Your task to perform on an android device: toggle show notifications on the lock screen Image 0: 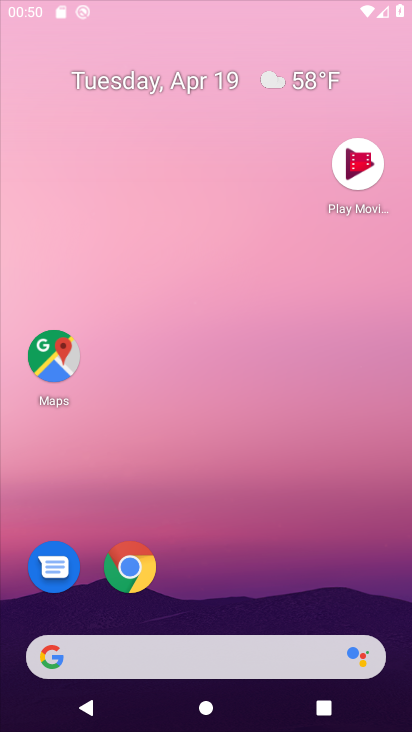
Step 0: click (358, 176)
Your task to perform on an android device: toggle show notifications on the lock screen Image 1: 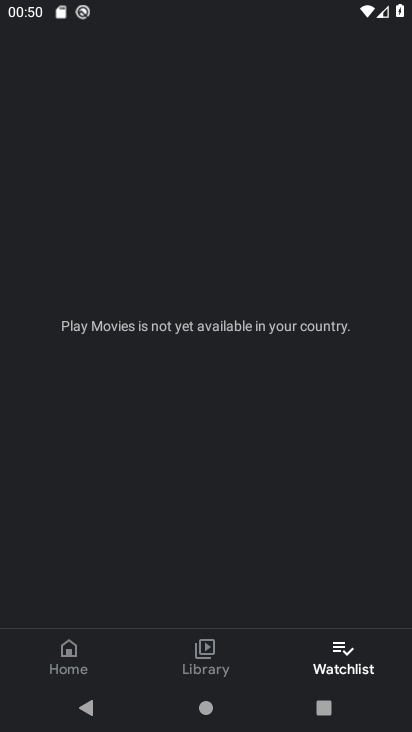
Step 1: drag from (272, 453) to (319, 240)
Your task to perform on an android device: toggle show notifications on the lock screen Image 2: 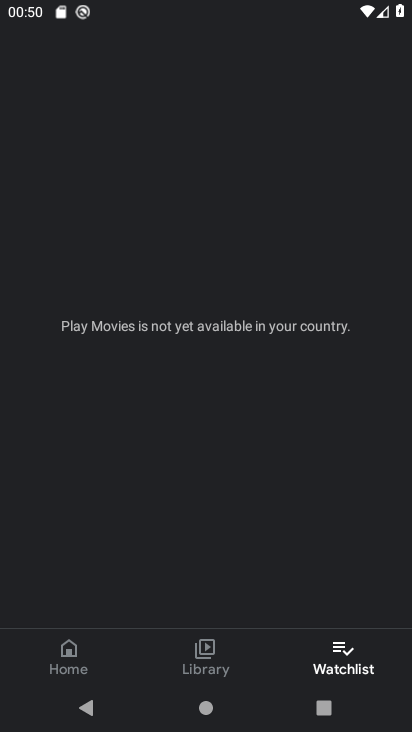
Step 2: press home button
Your task to perform on an android device: toggle show notifications on the lock screen Image 3: 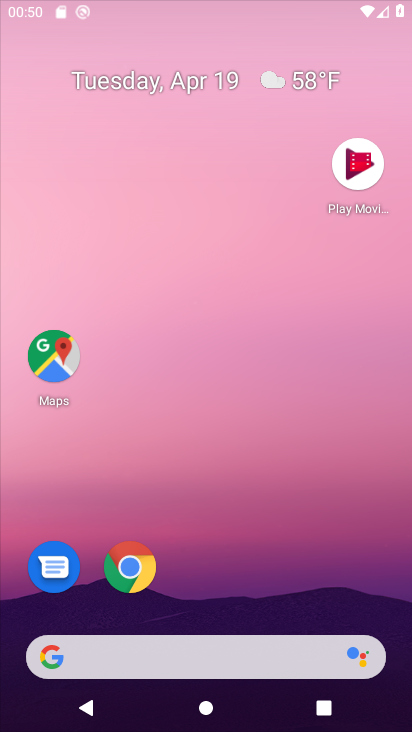
Step 3: drag from (188, 585) to (271, 23)
Your task to perform on an android device: toggle show notifications on the lock screen Image 4: 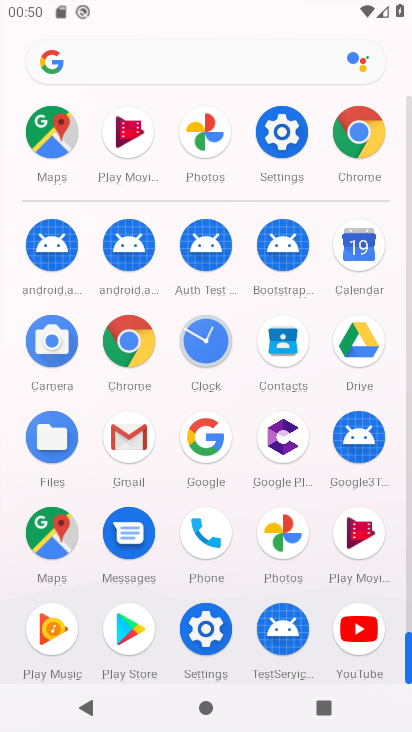
Step 4: click (223, 618)
Your task to perform on an android device: toggle show notifications on the lock screen Image 5: 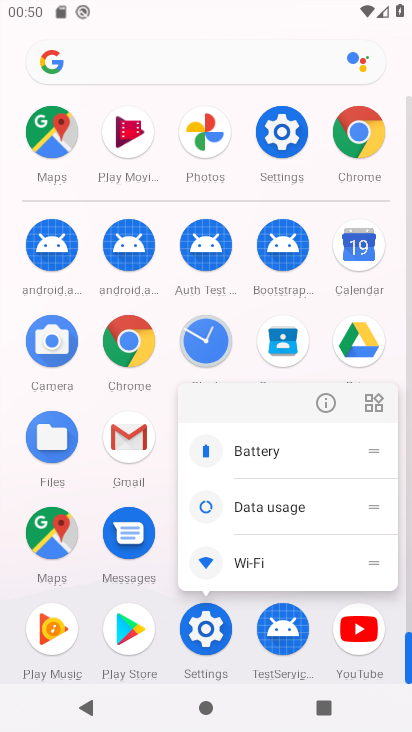
Step 5: click (311, 398)
Your task to perform on an android device: toggle show notifications on the lock screen Image 6: 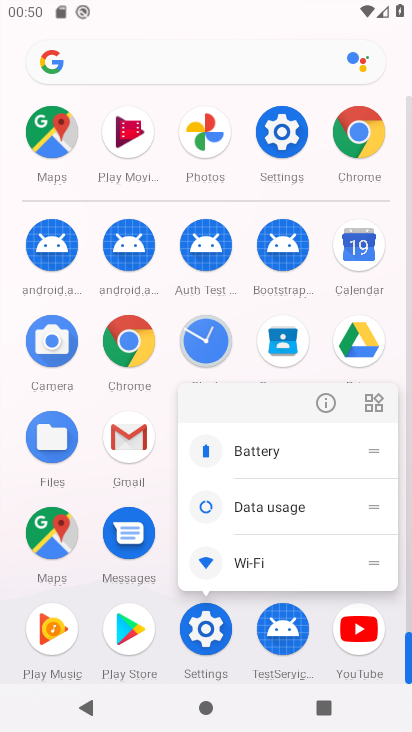
Step 6: click (323, 401)
Your task to perform on an android device: toggle show notifications on the lock screen Image 7: 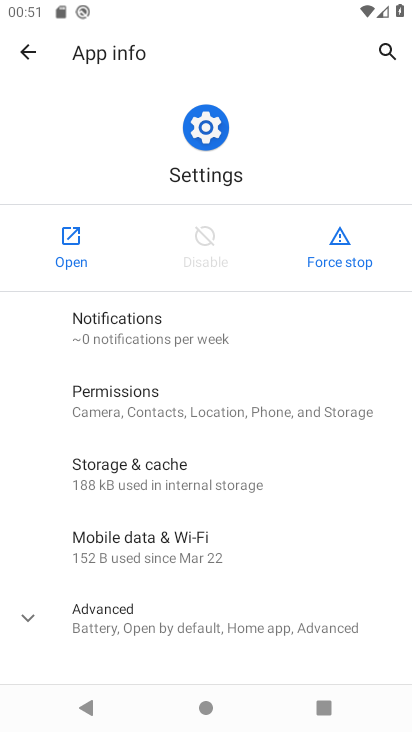
Step 7: click (60, 238)
Your task to perform on an android device: toggle show notifications on the lock screen Image 8: 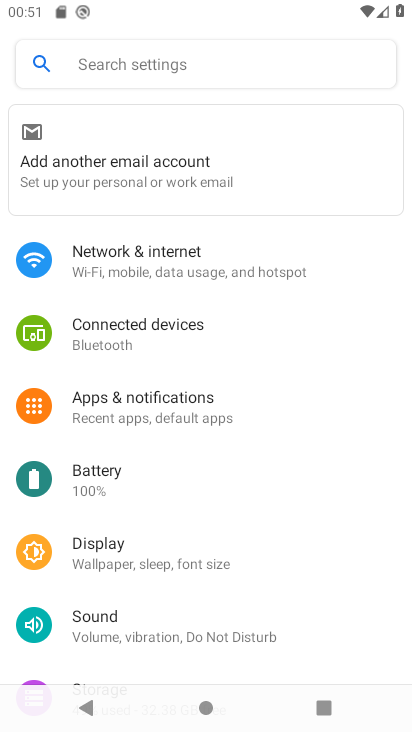
Step 8: click (157, 406)
Your task to perform on an android device: toggle show notifications on the lock screen Image 9: 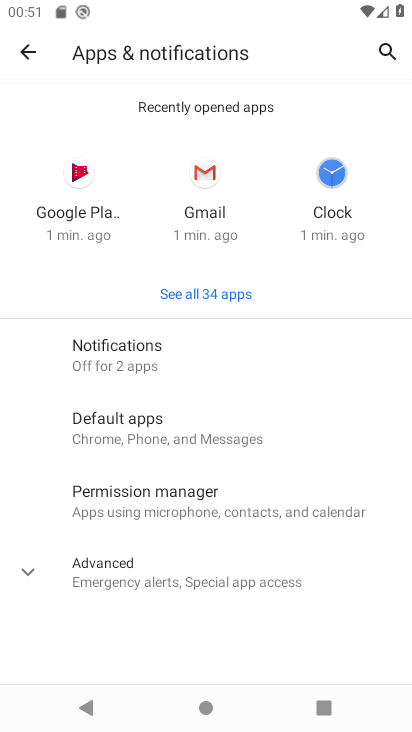
Step 9: click (145, 356)
Your task to perform on an android device: toggle show notifications on the lock screen Image 10: 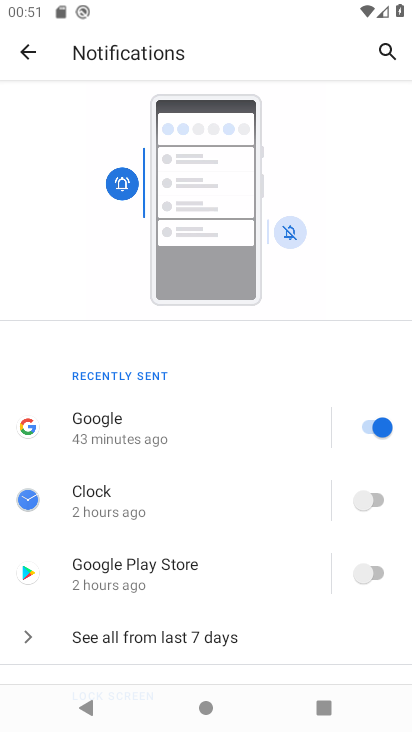
Step 10: drag from (301, 525) to (333, 217)
Your task to perform on an android device: toggle show notifications on the lock screen Image 11: 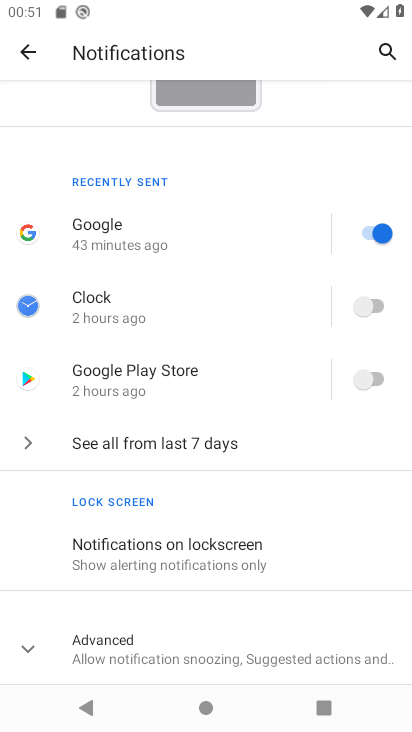
Step 11: click (171, 553)
Your task to perform on an android device: toggle show notifications on the lock screen Image 12: 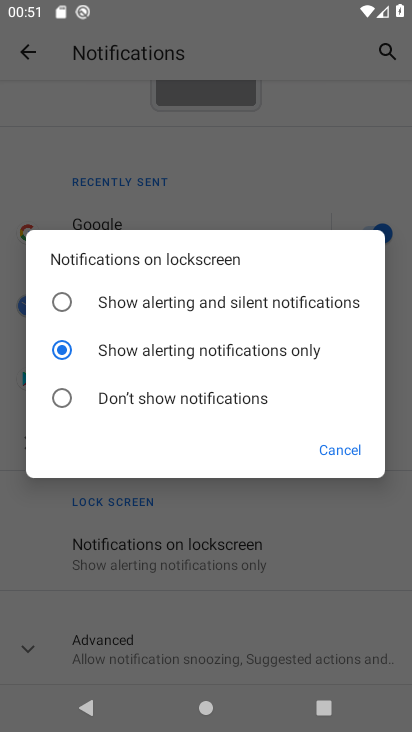
Step 12: task complete